Your task to perform on an android device: check storage Image 0: 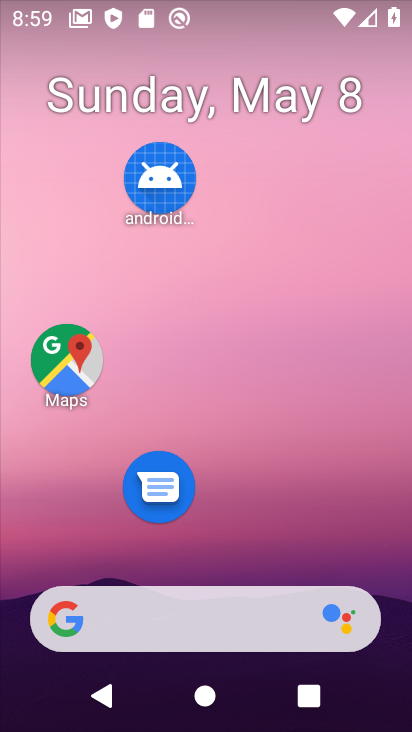
Step 0: drag from (336, 517) to (247, 26)
Your task to perform on an android device: check storage Image 1: 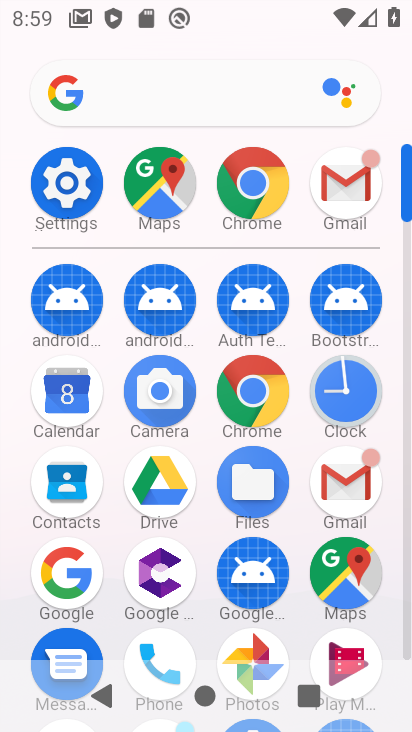
Step 1: click (80, 189)
Your task to perform on an android device: check storage Image 2: 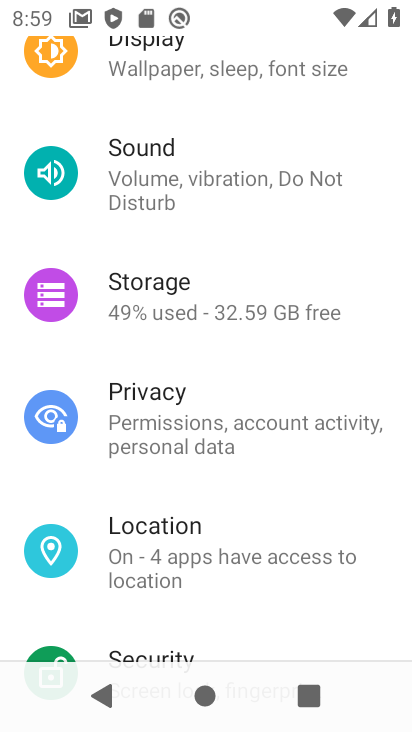
Step 2: click (249, 312)
Your task to perform on an android device: check storage Image 3: 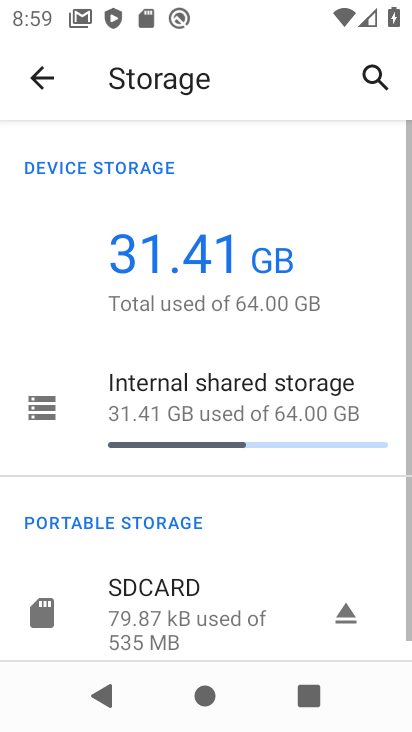
Step 3: task complete